Your task to perform on an android device: What's the news in Laos? Image 0: 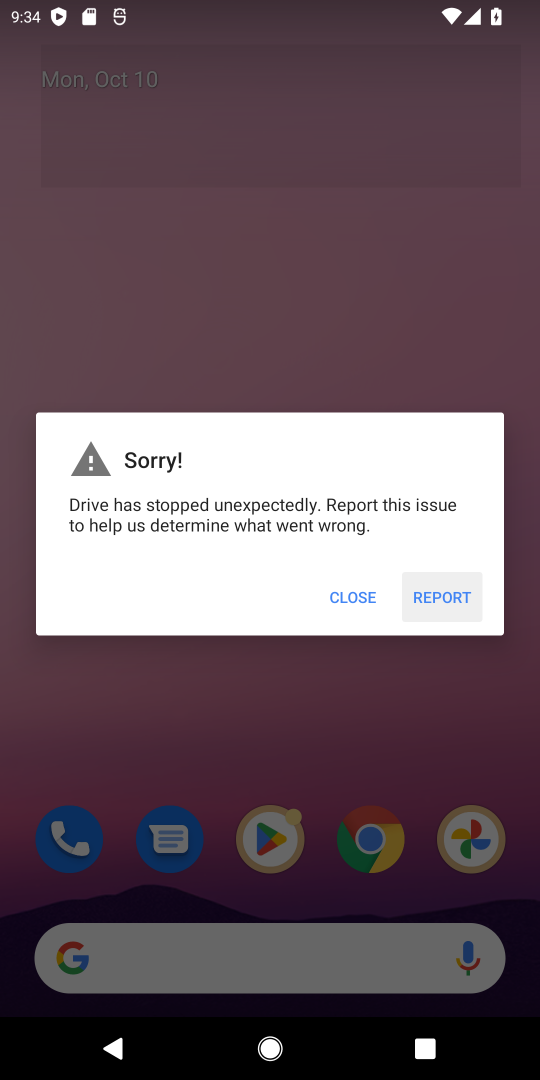
Step 0: press home button
Your task to perform on an android device: What's the news in Laos? Image 1: 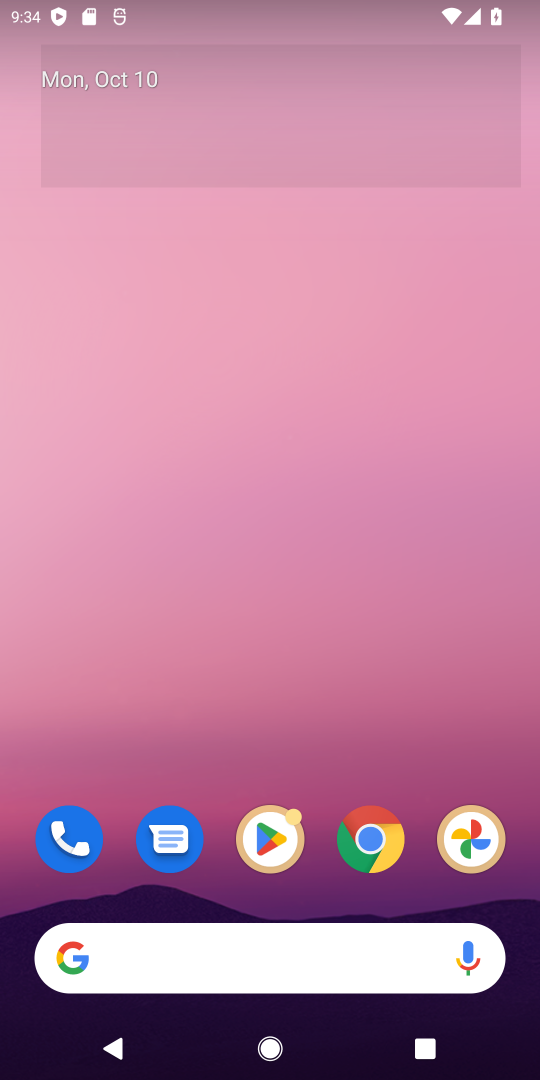
Step 1: drag from (323, 890) to (453, 57)
Your task to perform on an android device: What's the news in Laos? Image 2: 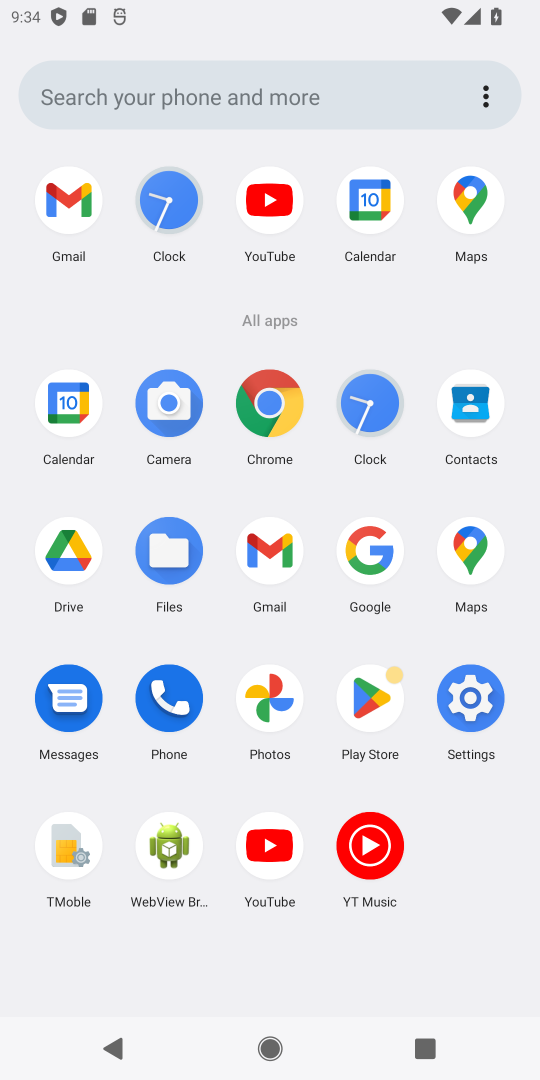
Step 2: click (269, 405)
Your task to perform on an android device: What's the news in Laos? Image 3: 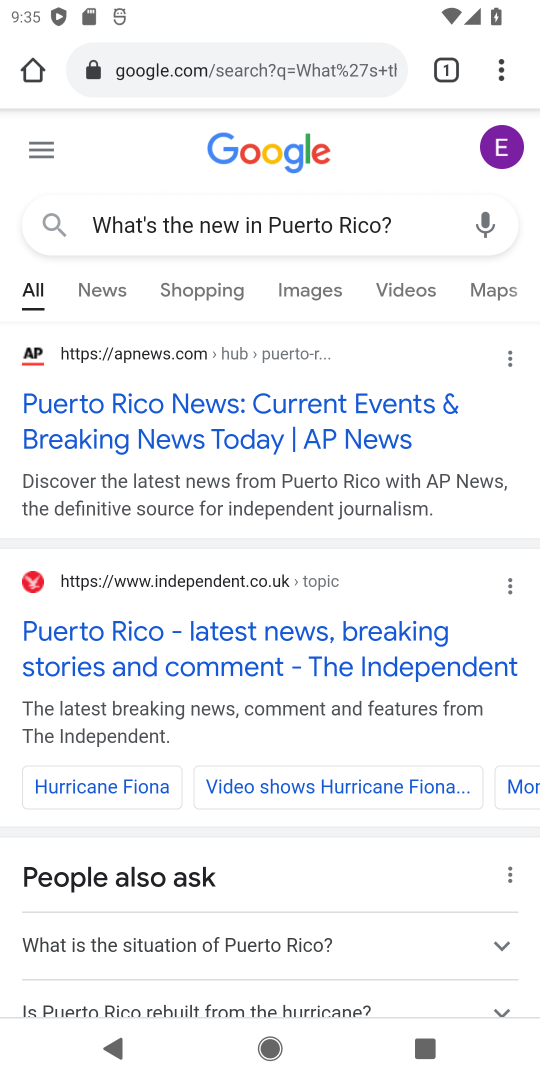
Step 3: click (356, 72)
Your task to perform on an android device: What's the news in Laos? Image 4: 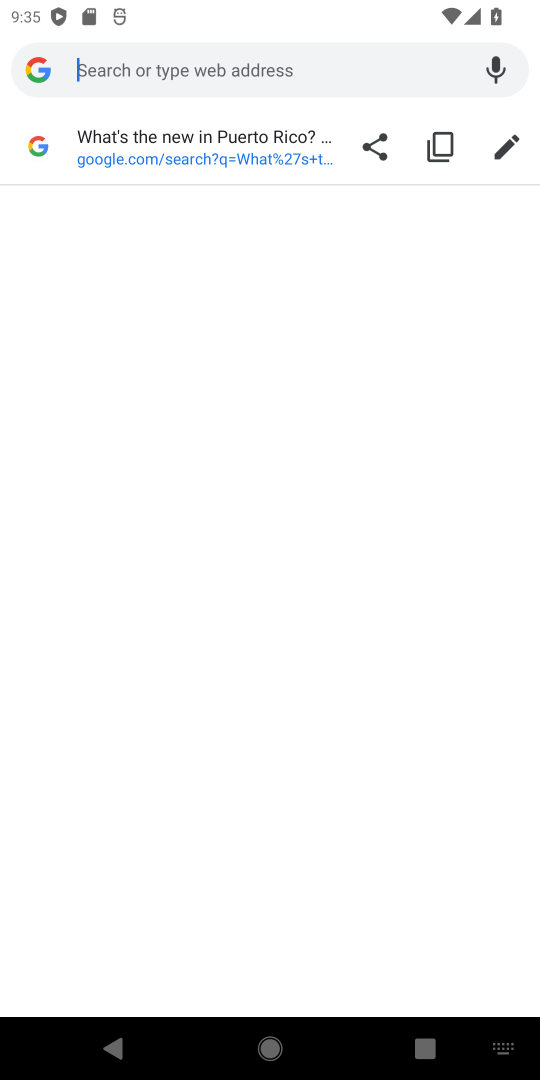
Step 4: type "What's the news in Laos?"
Your task to perform on an android device: What's the news in Laos? Image 5: 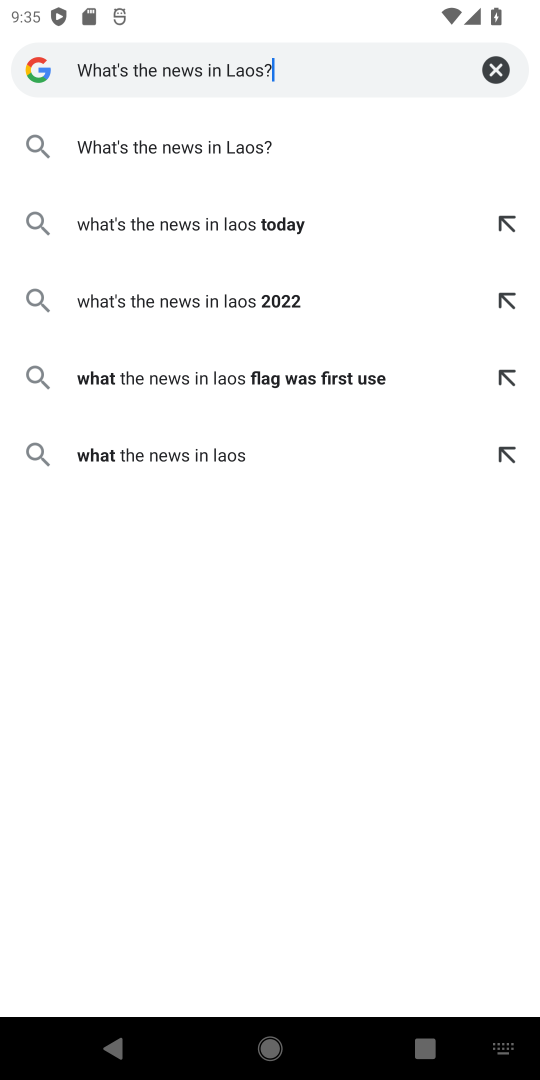
Step 5: press enter
Your task to perform on an android device: What's the news in Laos? Image 6: 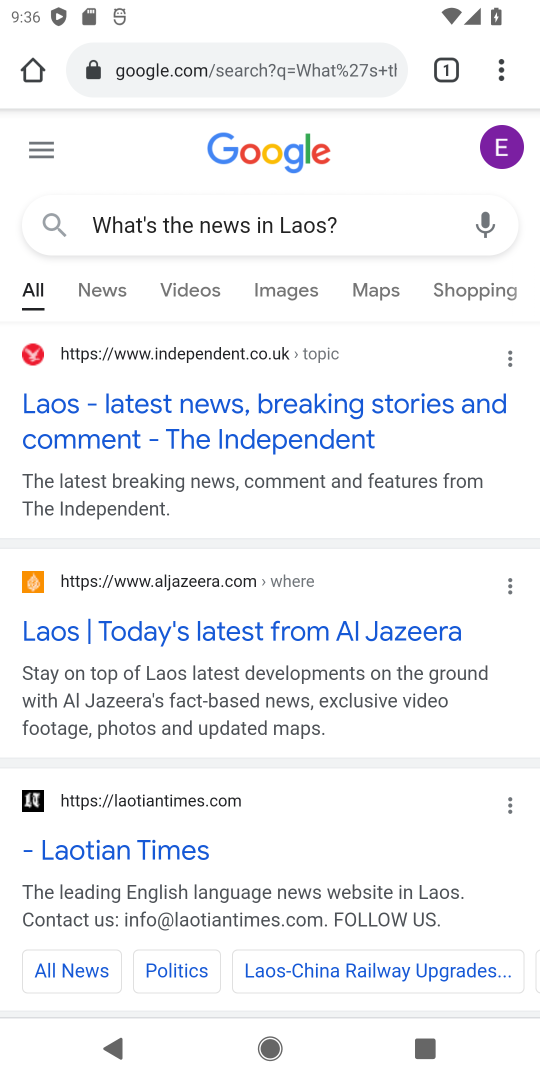
Step 6: click (227, 406)
Your task to perform on an android device: What's the news in Laos? Image 7: 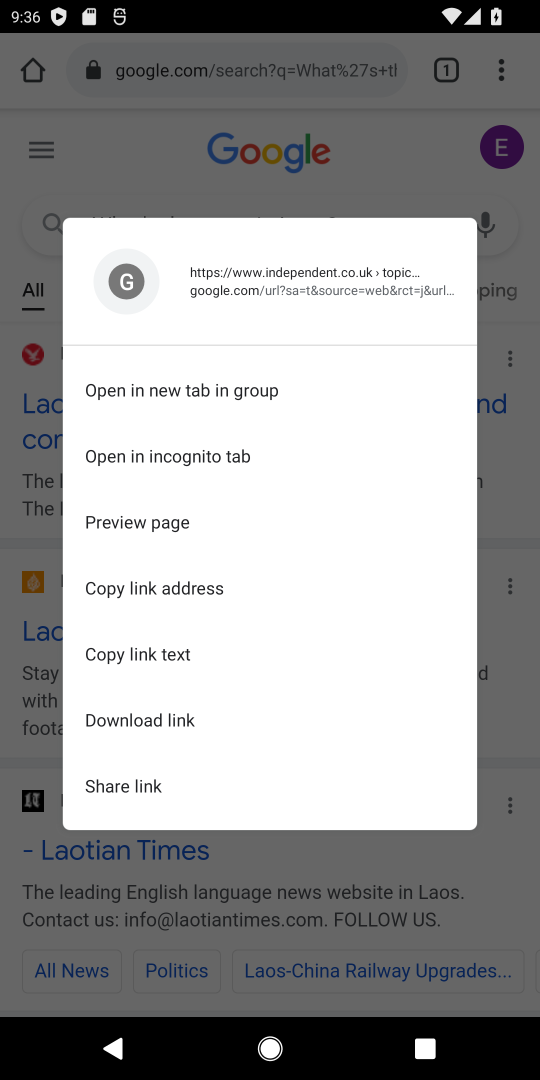
Step 7: click (241, 170)
Your task to perform on an android device: What's the news in Laos? Image 8: 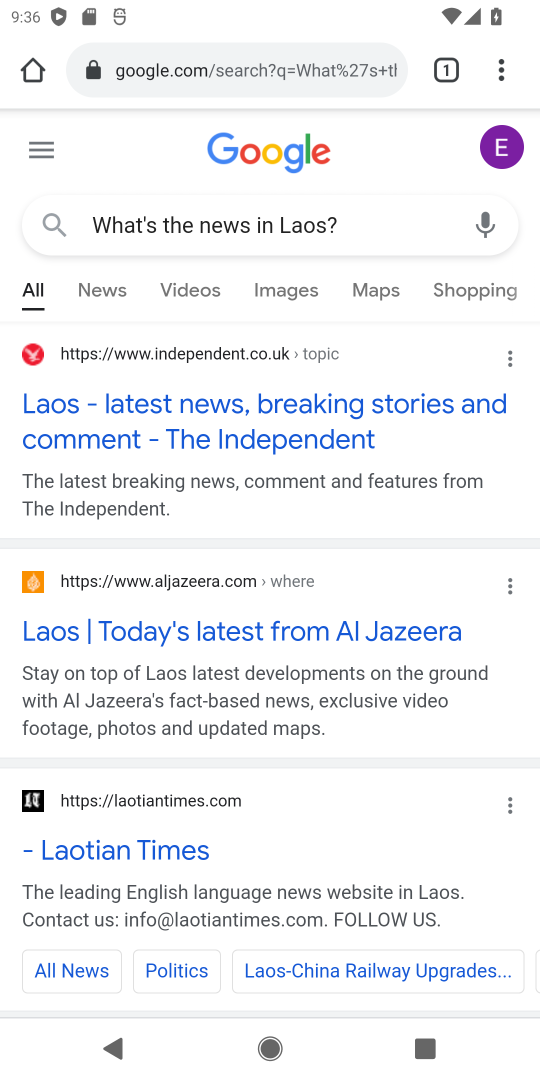
Step 8: click (278, 404)
Your task to perform on an android device: What's the news in Laos? Image 9: 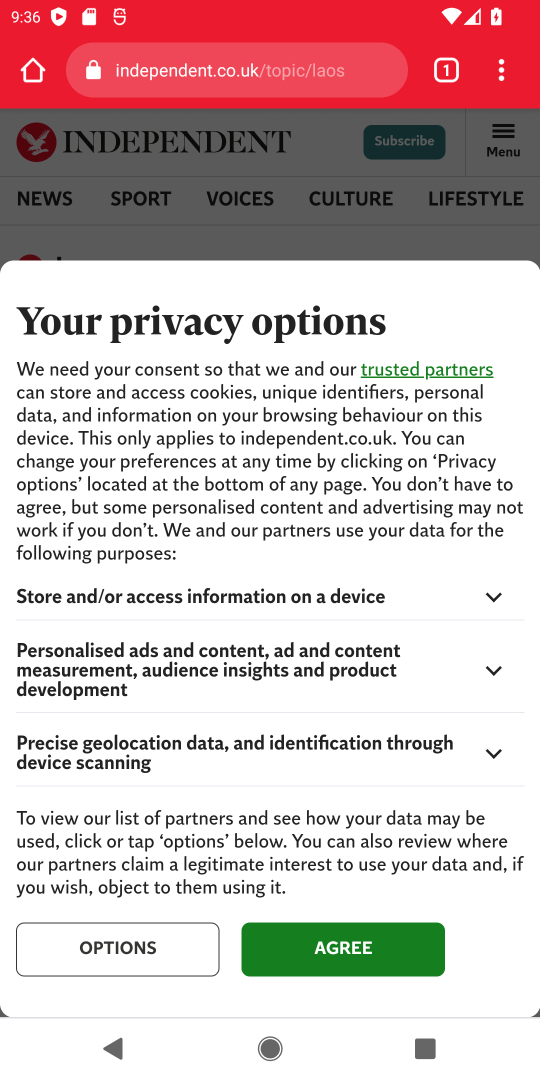
Step 9: click (374, 947)
Your task to perform on an android device: What's the news in Laos? Image 10: 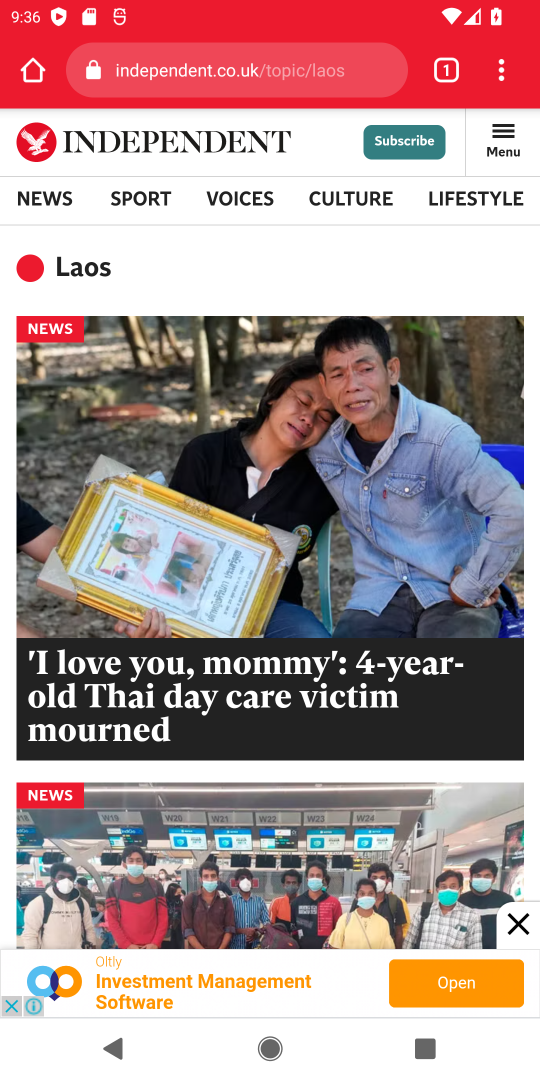
Step 10: task complete